Your task to perform on an android device: Open privacy settings Image 0: 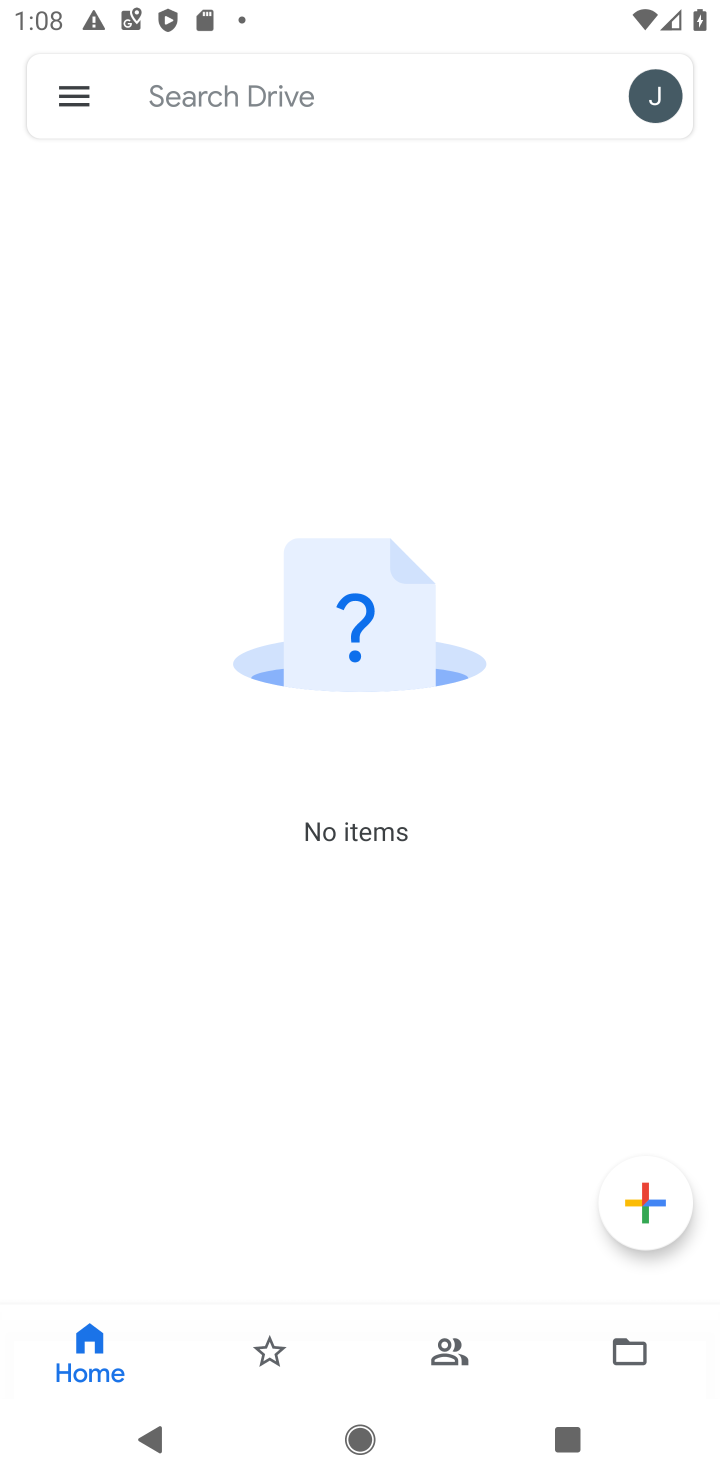
Step 0: press home button
Your task to perform on an android device: Open privacy settings Image 1: 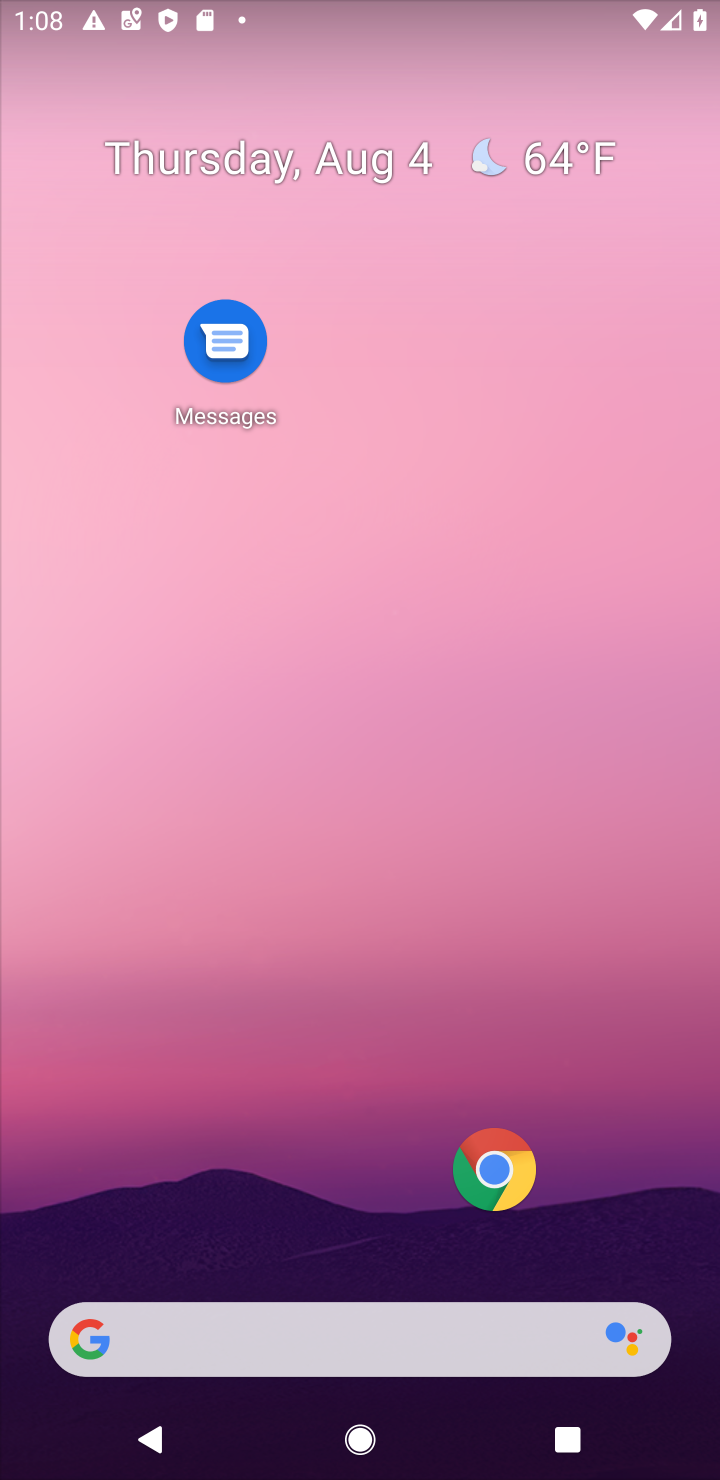
Step 1: drag from (330, 1243) to (478, 6)
Your task to perform on an android device: Open privacy settings Image 2: 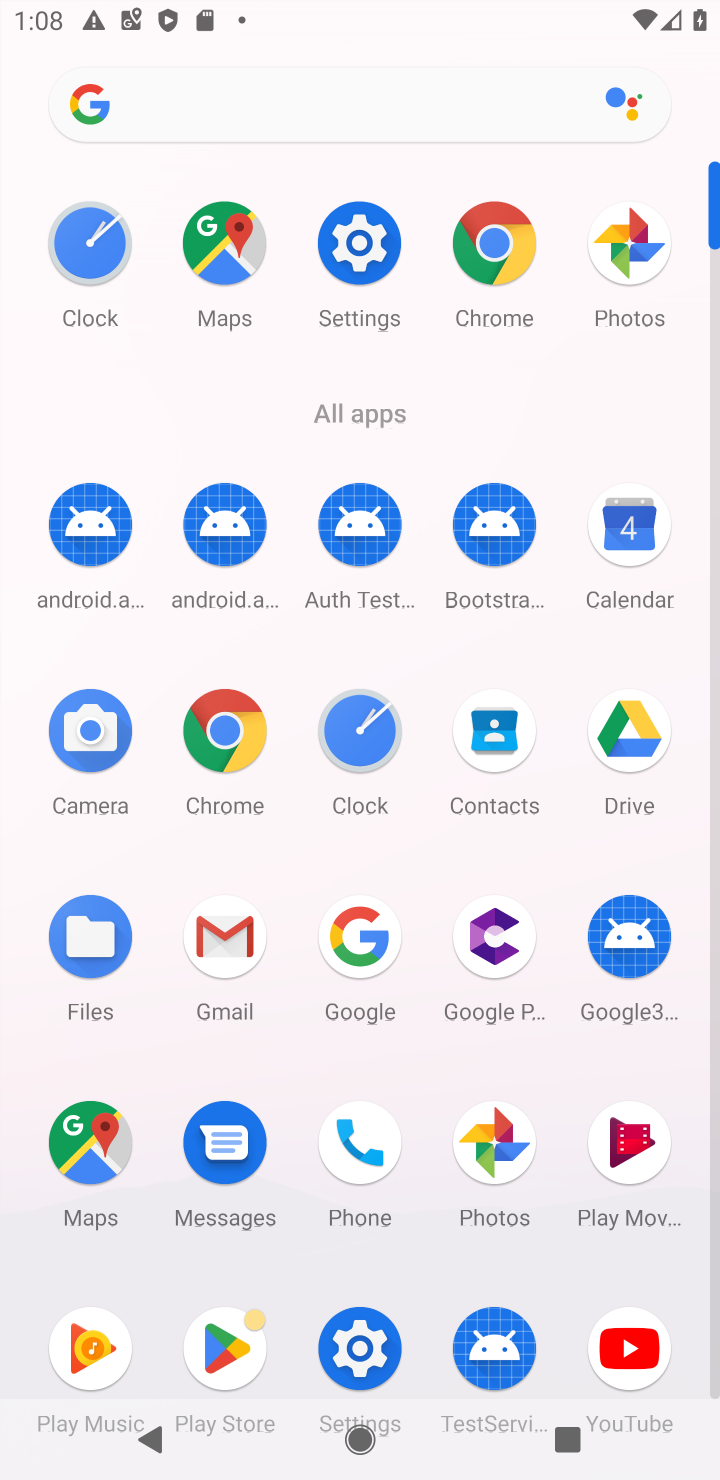
Step 2: click (372, 282)
Your task to perform on an android device: Open privacy settings Image 3: 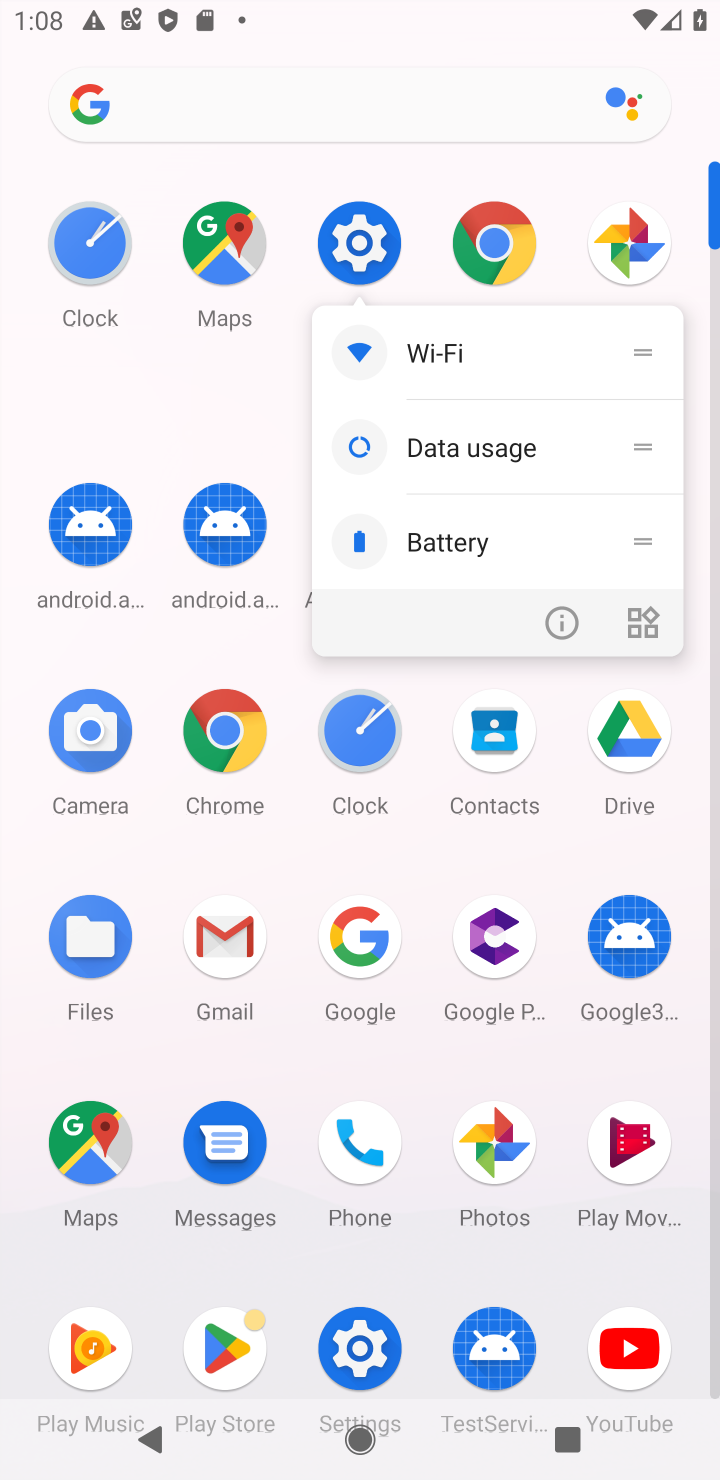
Step 3: click (349, 246)
Your task to perform on an android device: Open privacy settings Image 4: 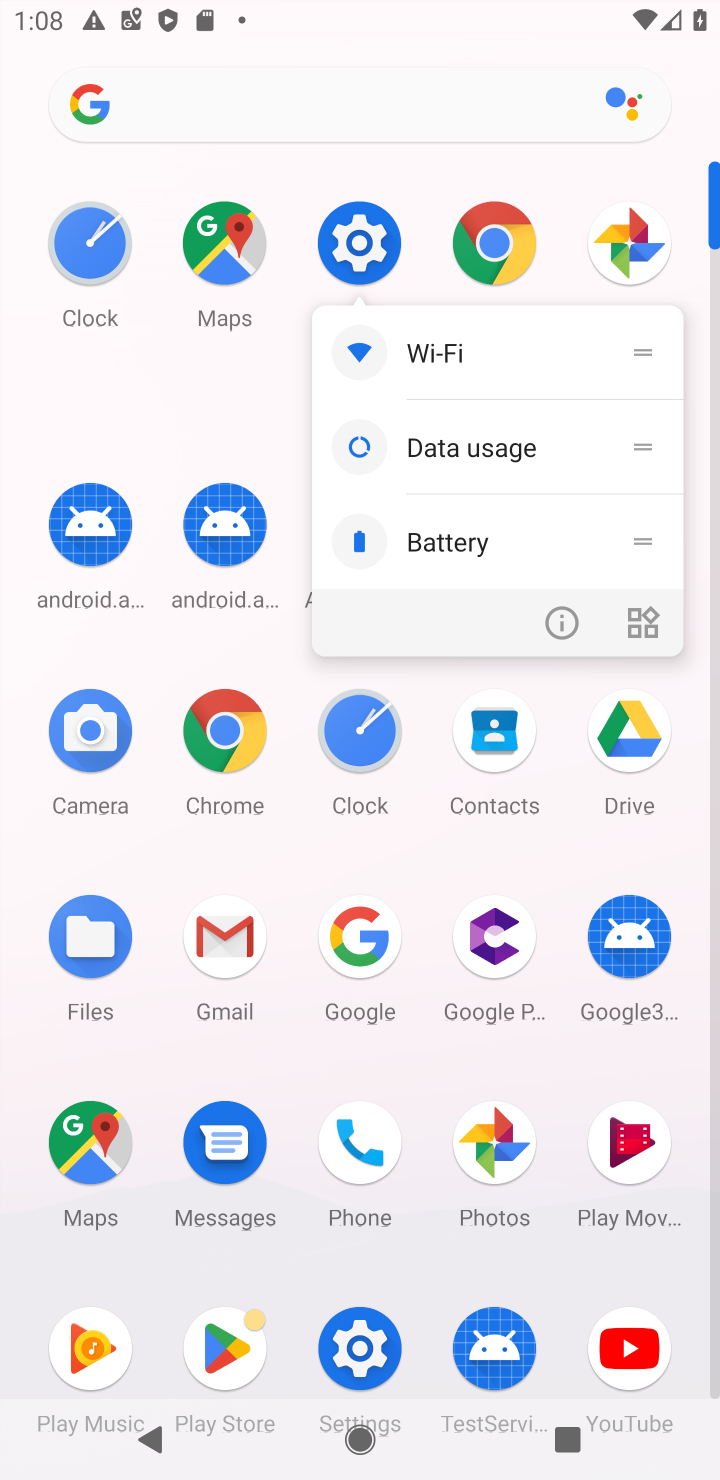
Step 4: click (349, 246)
Your task to perform on an android device: Open privacy settings Image 5: 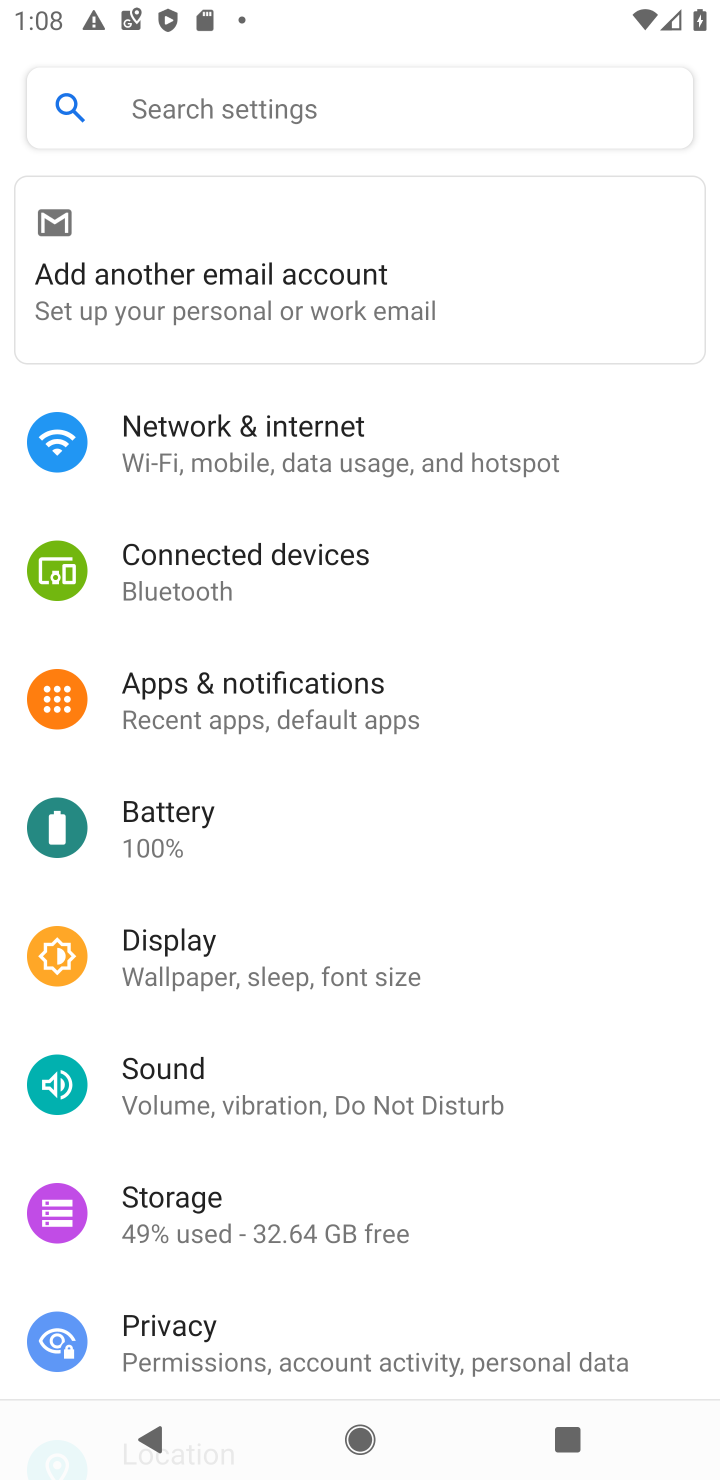
Step 5: drag from (325, 1172) to (342, 753)
Your task to perform on an android device: Open privacy settings Image 6: 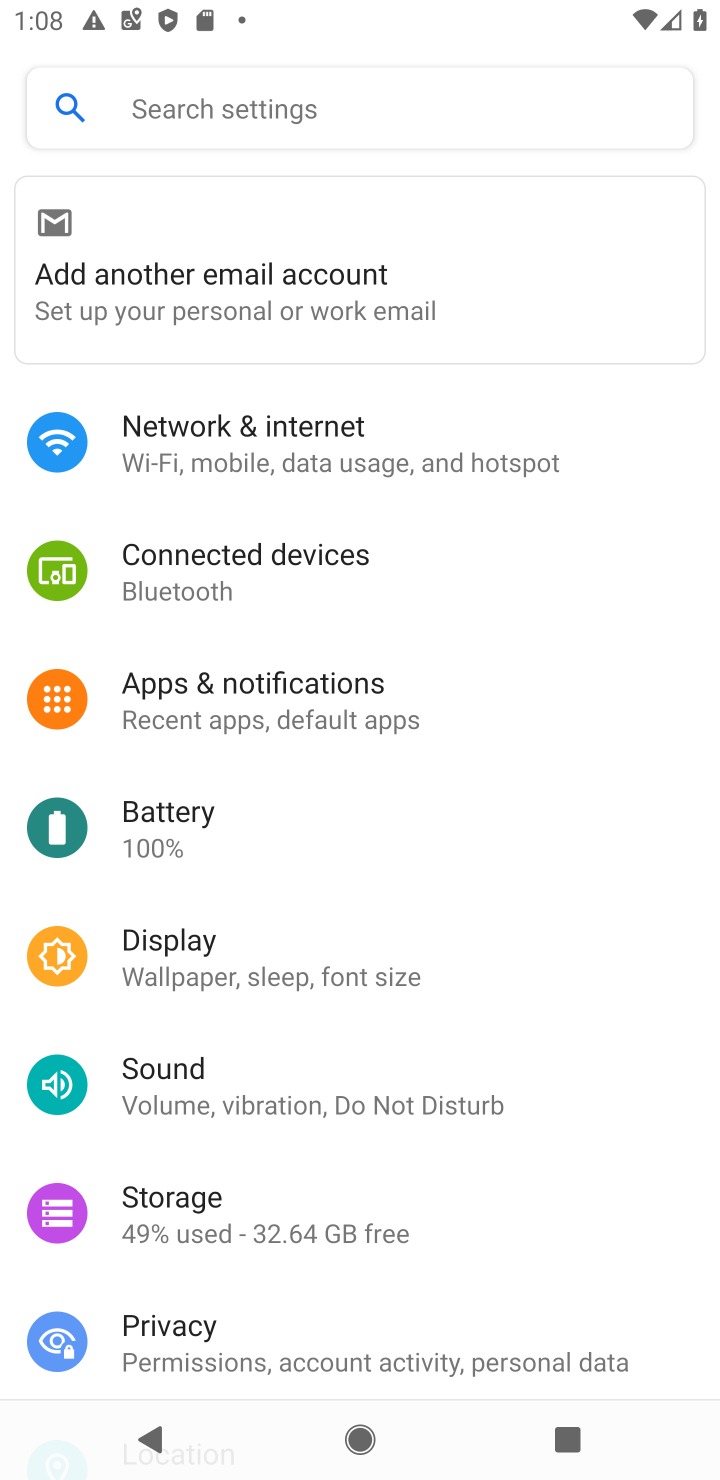
Step 6: click (169, 1334)
Your task to perform on an android device: Open privacy settings Image 7: 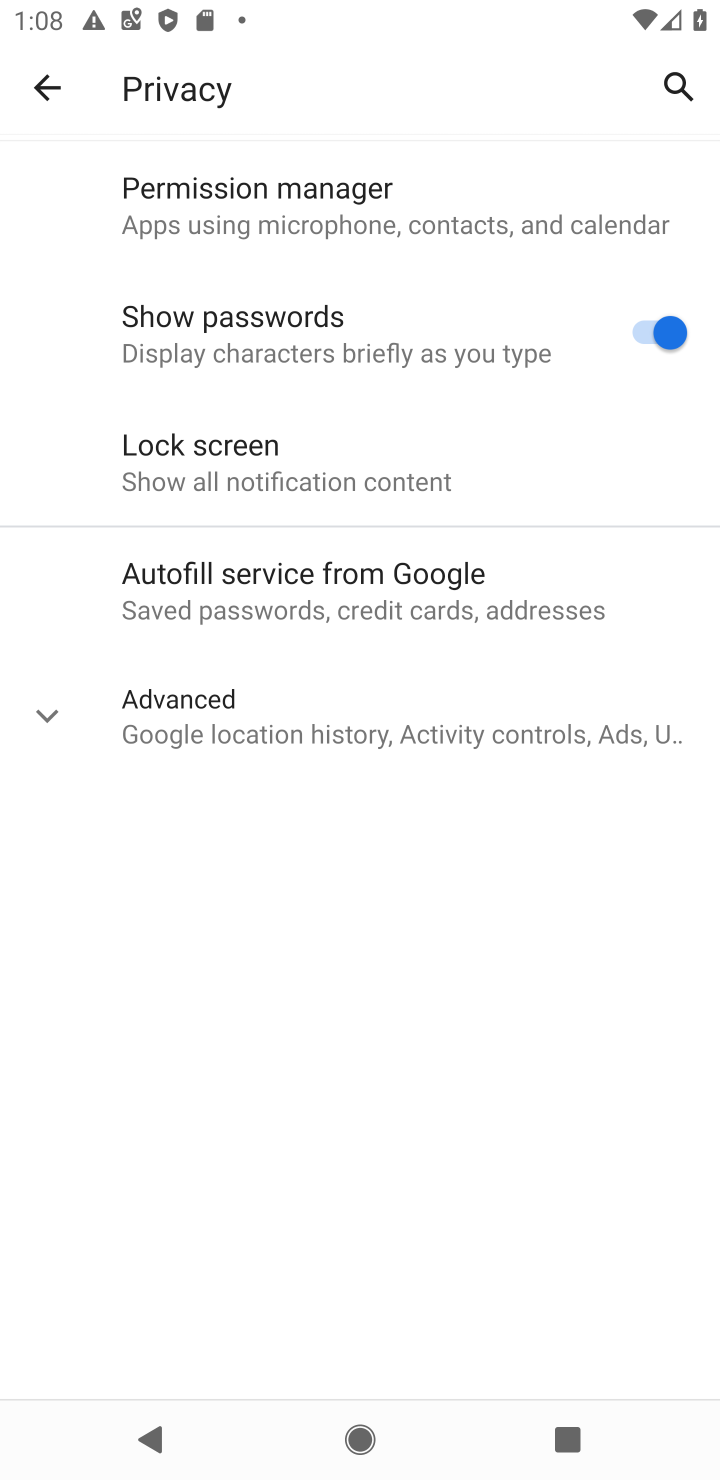
Step 7: task complete